Your task to perform on an android device: Set the phone to "Do not disturb". Image 0: 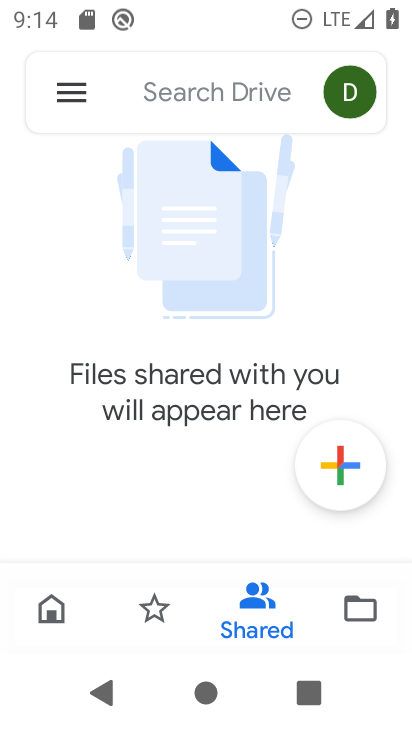
Step 0: drag from (213, 11) to (165, 641)
Your task to perform on an android device: Set the phone to "Do not disturb". Image 1: 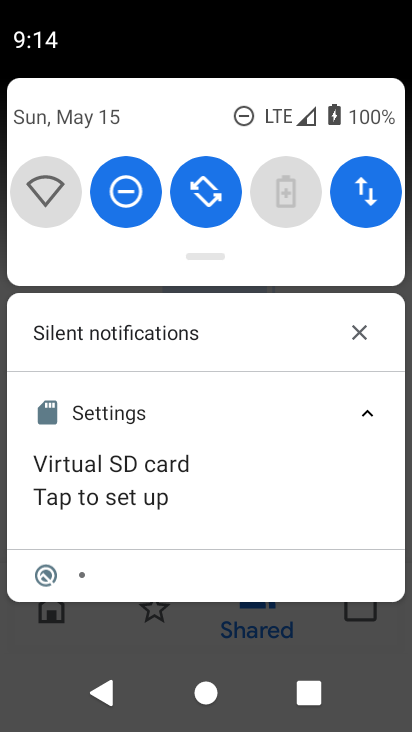
Step 1: task complete